Your task to perform on an android device: Open Maps and search for coffee Image 0: 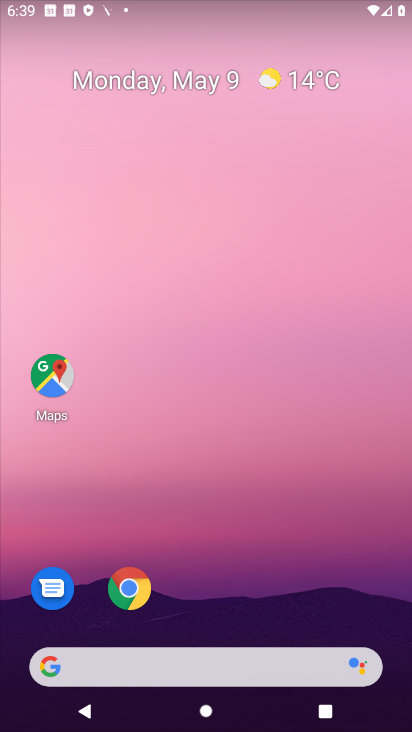
Step 0: drag from (364, 583) to (301, 52)
Your task to perform on an android device: Open Maps and search for coffee Image 1: 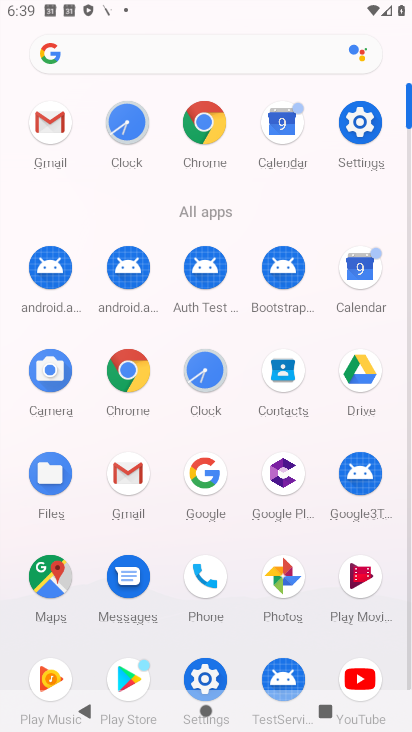
Step 1: click (48, 591)
Your task to perform on an android device: Open Maps and search for coffee Image 2: 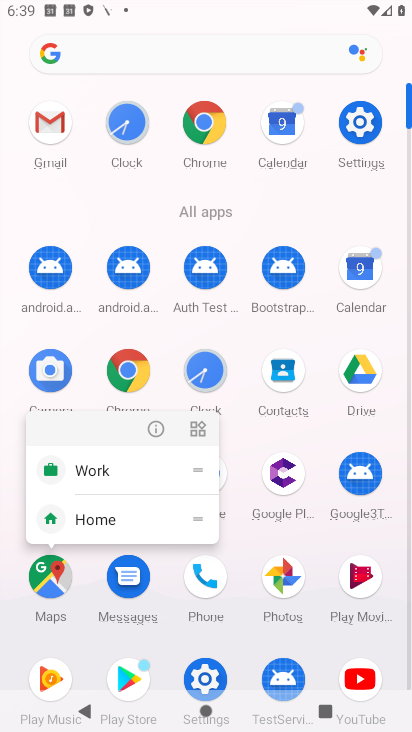
Step 2: click (48, 591)
Your task to perform on an android device: Open Maps and search for coffee Image 3: 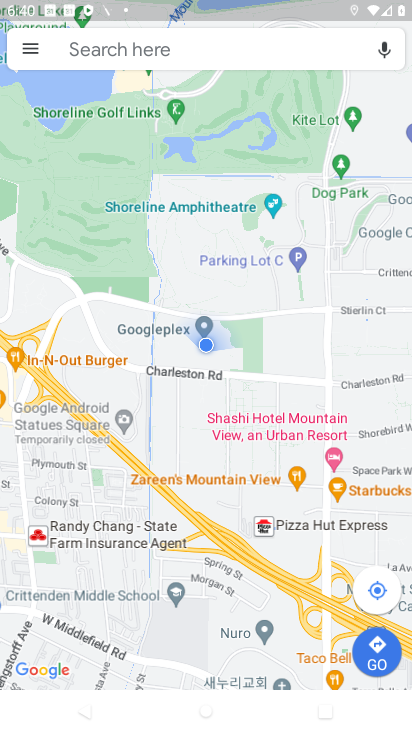
Step 3: click (170, 48)
Your task to perform on an android device: Open Maps and search for coffee Image 4: 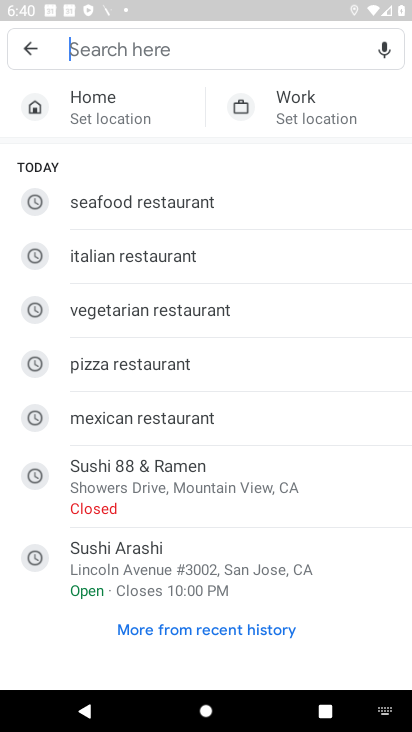
Step 4: type "coffee"
Your task to perform on an android device: Open Maps and search for coffee Image 5: 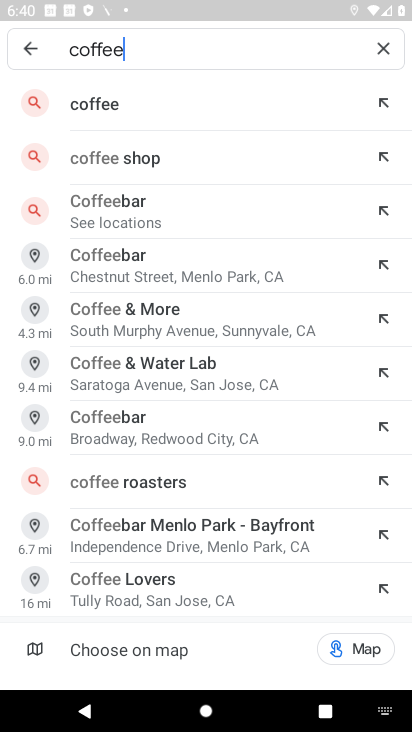
Step 5: click (117, 98)
Your task to perform on an android device: Open Maps and search for coffee Image 6: 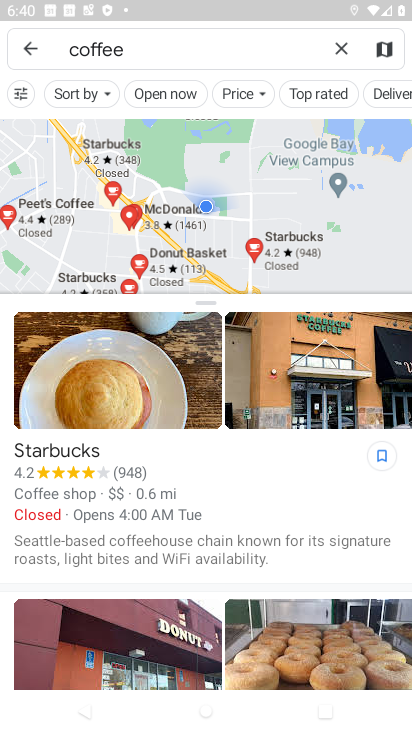
Step 6: task complete